Your task to perform on an android device: turn on sleep mode Image 0: 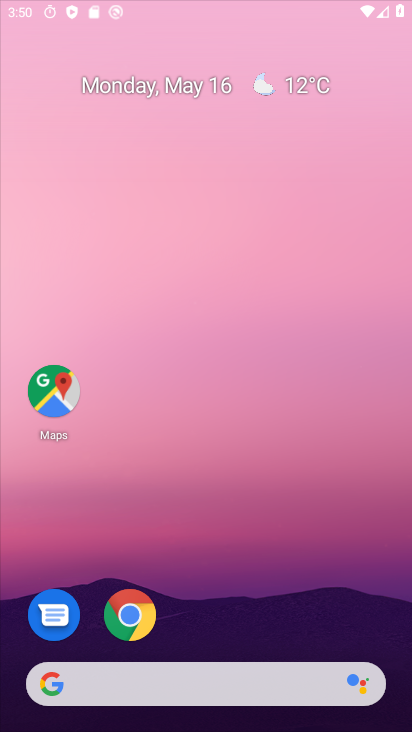
Step 0: drag from (337, 567) to (220, 169)
Your task to perform on an android device: turn on sleep mode Image 1: 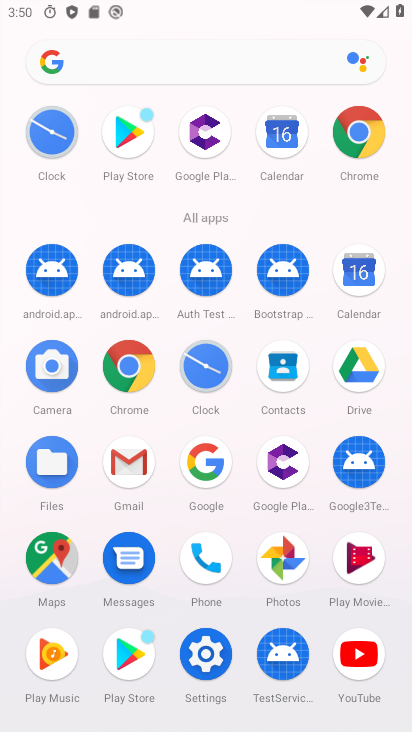
Step 1: click (198, 651)
Your task to perform on an android device: turn on sleep mode Image 2: 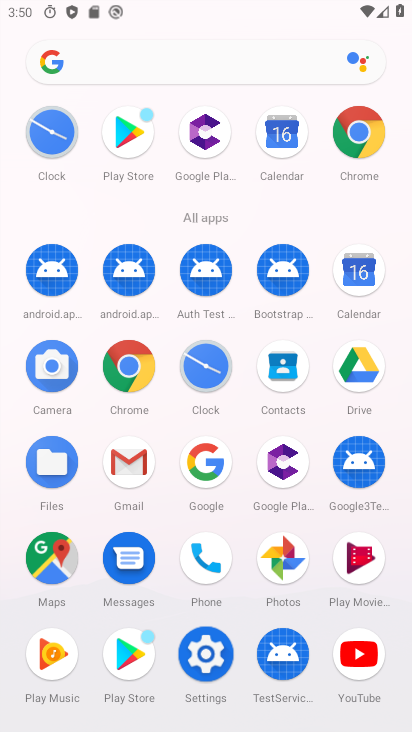
Step 2: click (207, 658)
Your task to perform on an android device: turn on sleep mode Image 3: 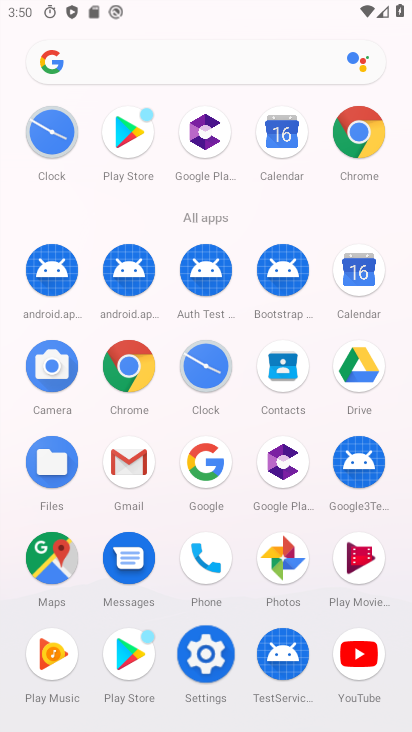
Step 3: click (209, 660)
Your task to perform on an android device: turn on sleep mode Image 4: 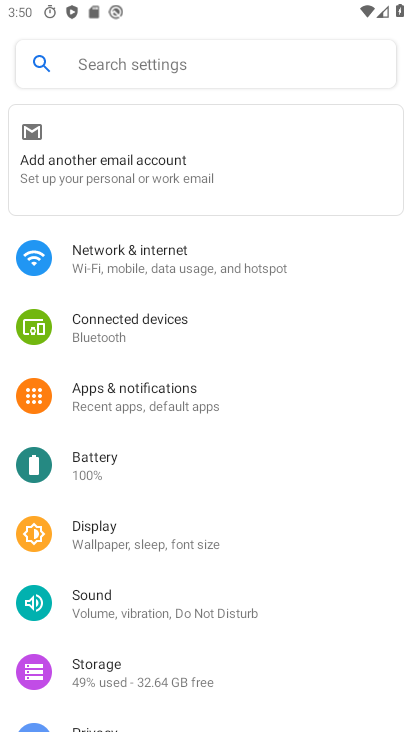
Step 4: drag from (172, 427) to (120, 128)
Your task to perform on an android device: turn on sleep mode Image 5: 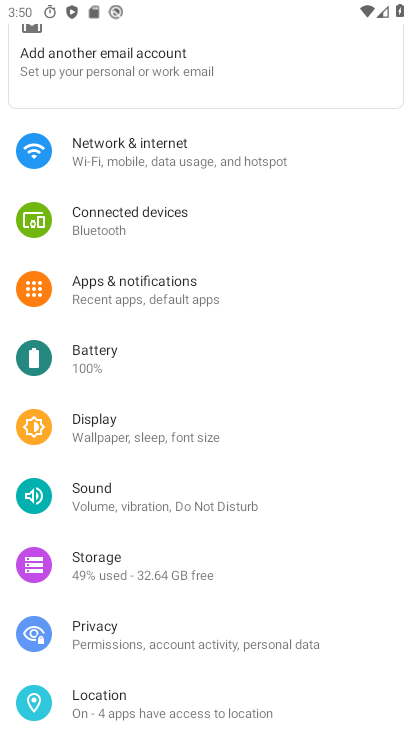
Step 5: drag from (135, 487) to (120, 165)
Your task to perform on an android device: turn on sleep mode Image 6: 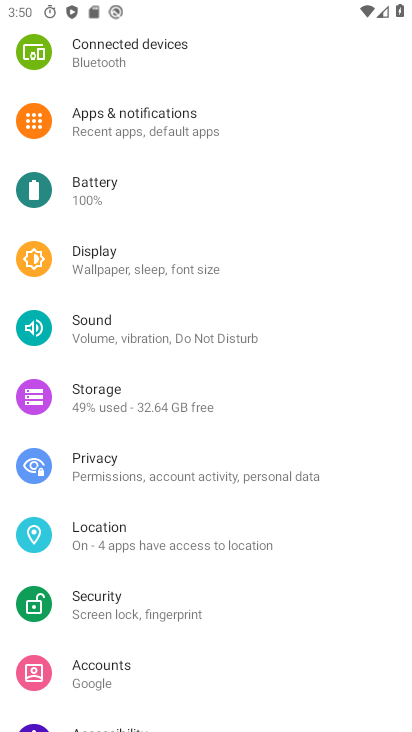
Step 6: click (100, 261)
Your task to perform on an android device: turn on sleep mode Image 7: 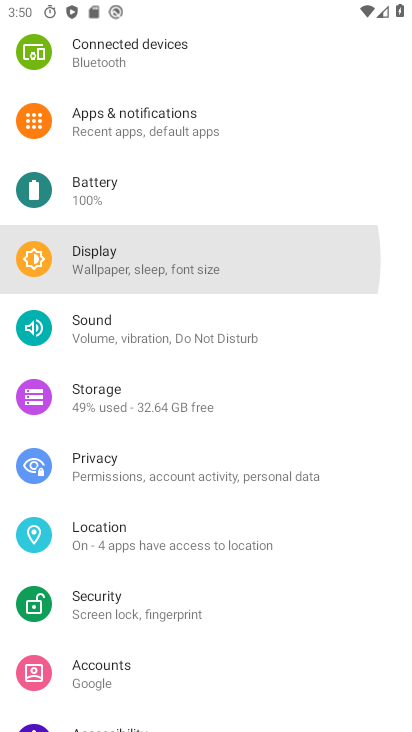
Step 7: click (100, 261)
Your task to perform on an android device: turn on sleep mode Image 8: 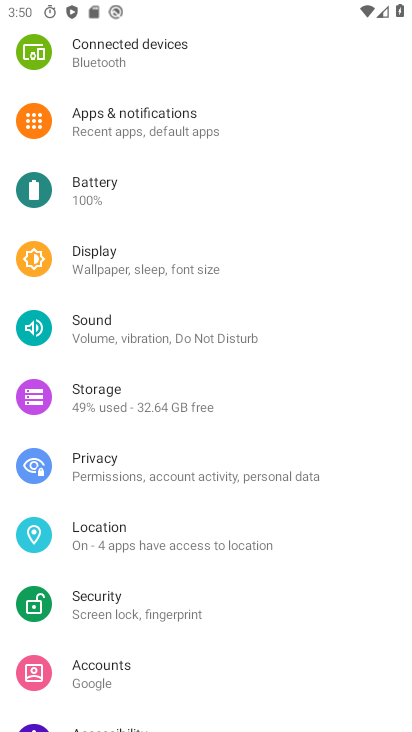
Step 8: click (102, 263)
Your task to perform on an android device: turn on sleep mode Image 9: 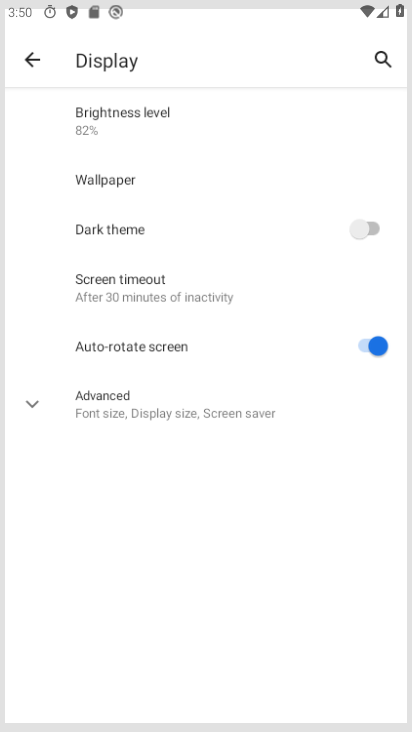
Step 9: click (101, 262)
Your task to perform on an android device: turn on sleep mode Image 10: 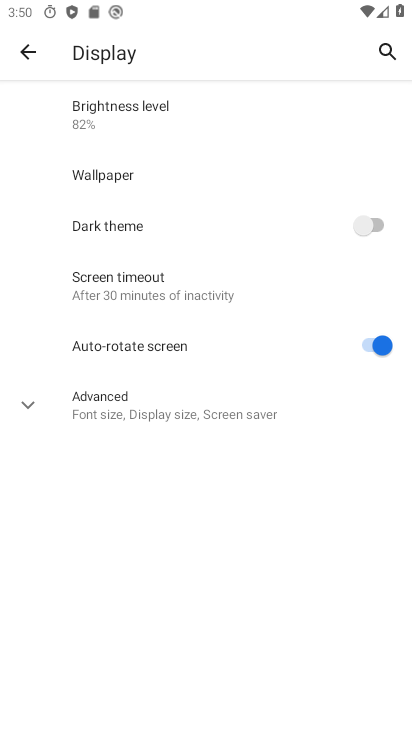
Step 10: click (101, 262)
Your task to perform on an android device: turn on sleep mode Image 11: 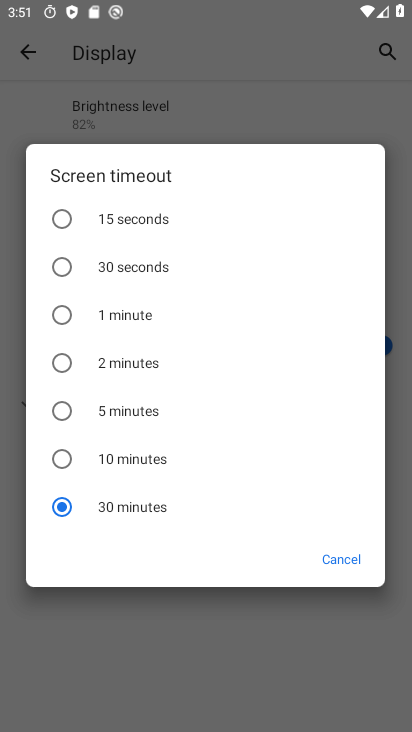
Step 11: click (61, 449)
Your task to perform on an android device: turn on sleep mode Image 12: 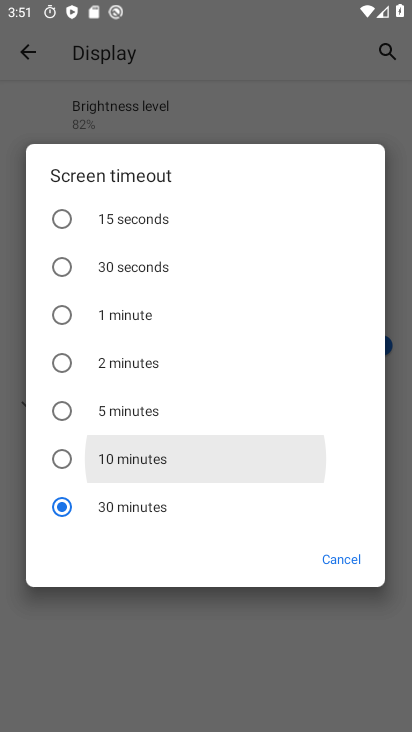
Step 12: click (64, 443)
Your task to perform on an android device: turn on sleep mode Image 13: 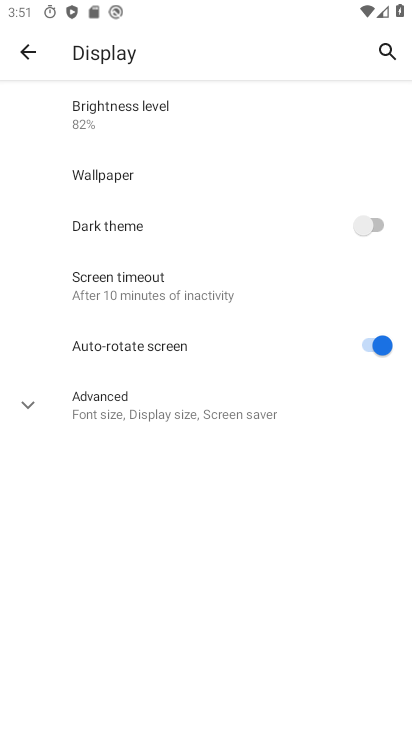
Step 13: click (131, 289)
Your task to perform on an android device: turn on sleep mode Image 14: 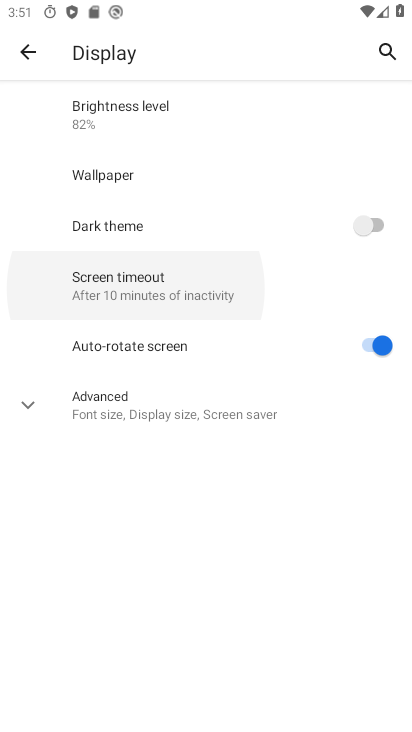
Step 14: click (131, 289)
Your task to perform on an android device: turn on sleep mode Image 15: 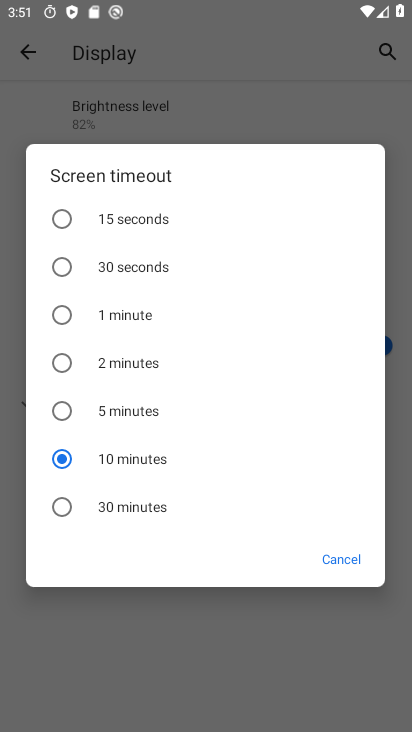
Step 15: click (19, 34)
Your task to perform on an android device: turn on sleep mode Image 16: 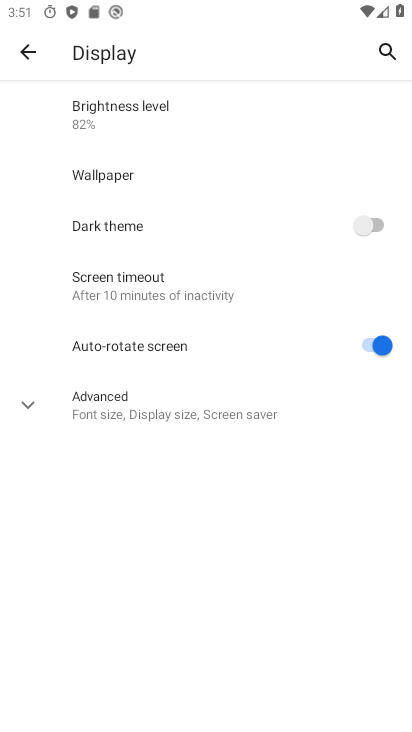
Step 16: click (333, 554)
Your task to perform on an android device: turn on sleep mode Image 17: 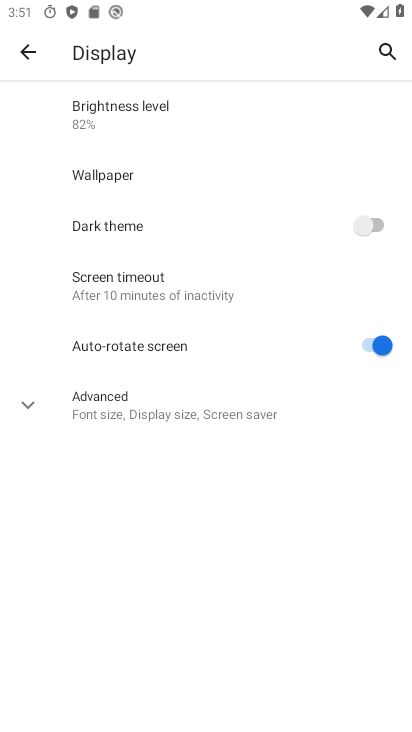
Step 17: task complete